Your task to perform on an android device: Open calendar and show me the second week of next month Image 0: 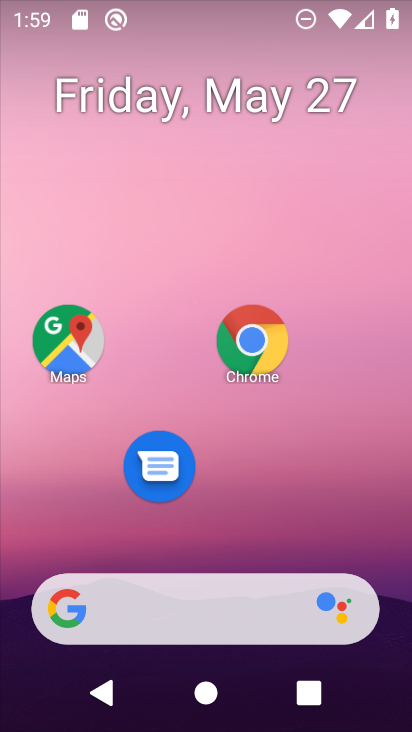
Step 0: drag from (357, 552) to (289, 55)
Your task to perform on an android device: Open calendar and show me the second week of next month Image 1: 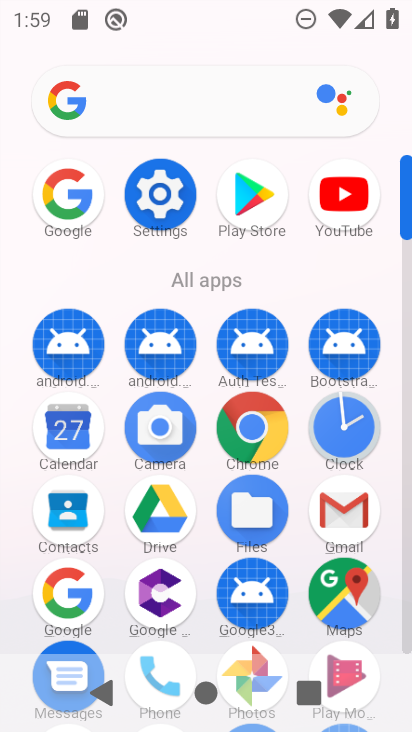
Step 1: click (61, 424)
Your task to perform on an android device: Open calendar and show me the second week of next month Image 2: 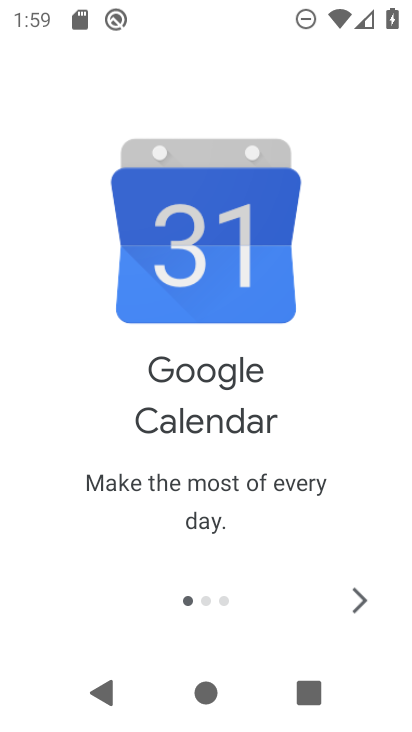
Step 2: click (350, 592)
Your task to perform on an android device: Open calendar and show me the second week of next month Image 3: 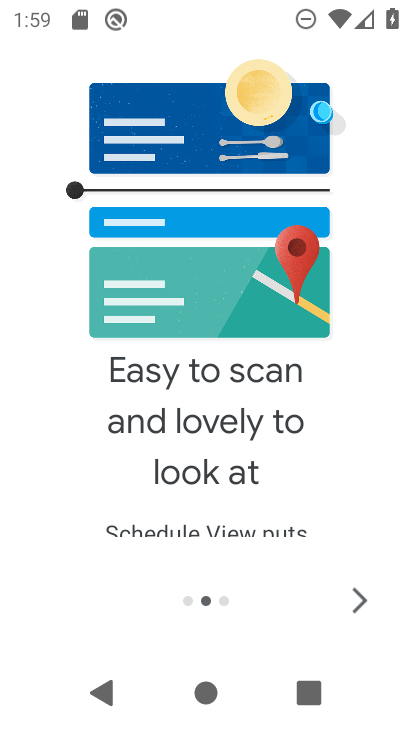
Step 3: click (350, 593)
Your task to perform on an android device: Open calendar and show me the second week of next month Image 4: 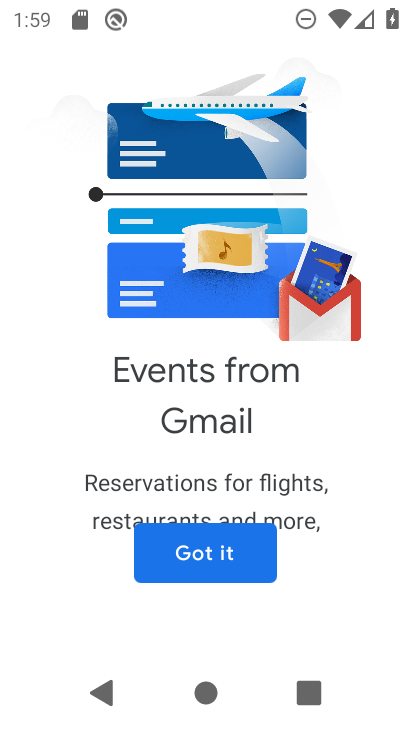
Step 4: click (225, 561)
Your task to perform on an android device: Open calendar and show me the second week of next month Image 5: 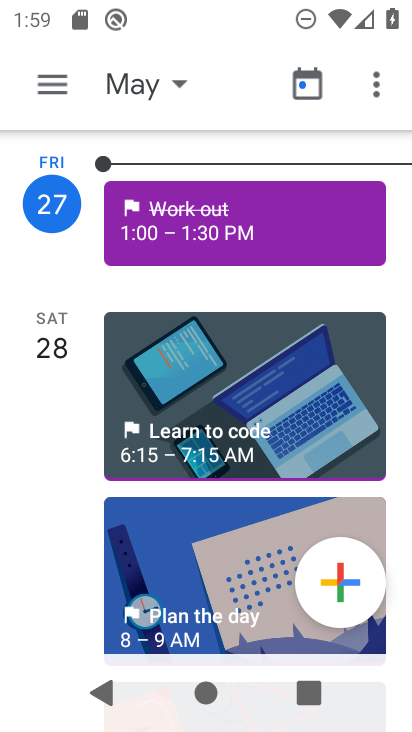
Step 5: click (139, 91)
Your task to perform on an android device: Open calendar and show me the second week of next month Image 6: 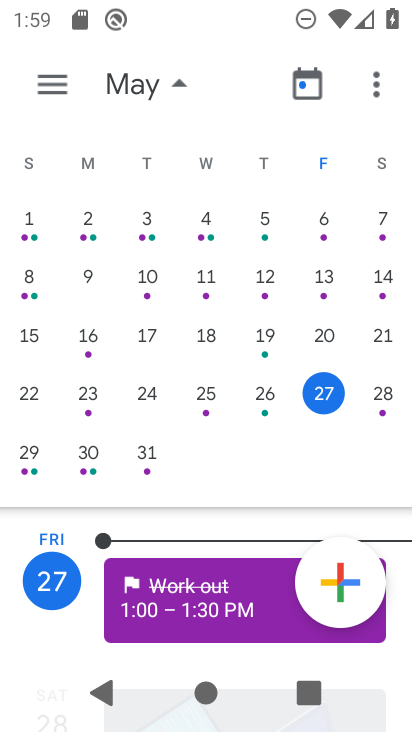
Step 6: drag from (276, 265) to (9, 257)
Your task to perform on an android device: Open calendar and show me the second week of next month Image 7: 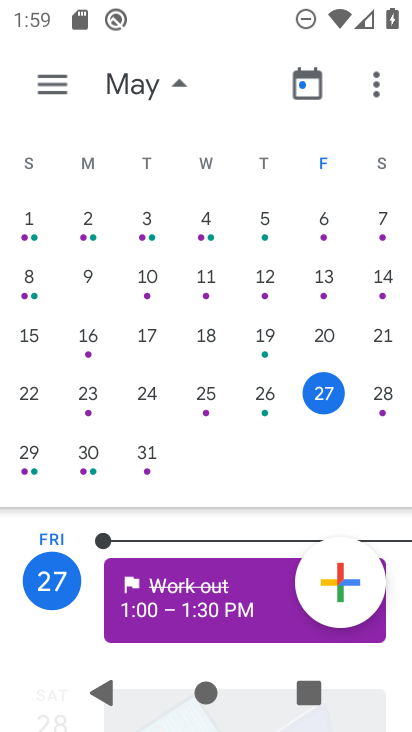
Step 7: drag from (335, 305) to (42, 374)
Your task to perform on an android device: Open calendar and show me the second week of next month Image 8: 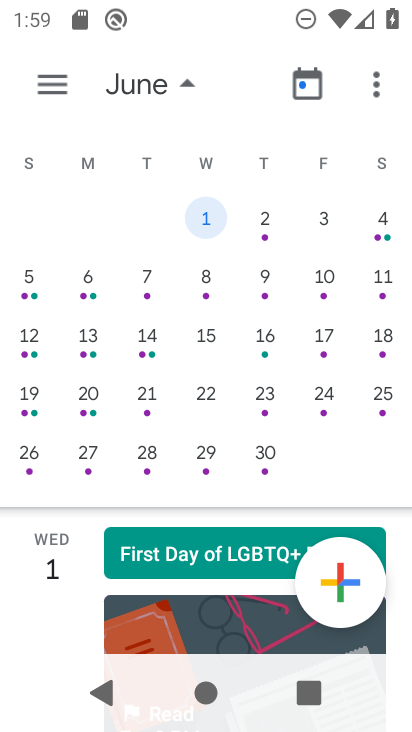
Step 8: click (83, 343)
Your task to perform on an android device: Open calendar and show me the second week of next month Image 9: 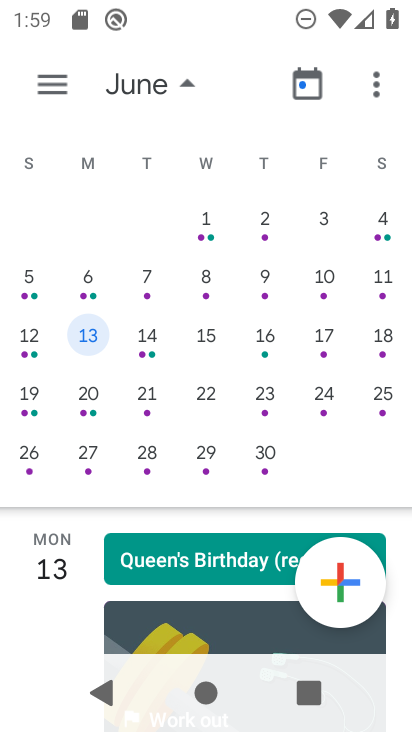
Step 9: click (38, 72)
Your task to perform on an android device: Open calendar and show me the second week of next month Image 10: 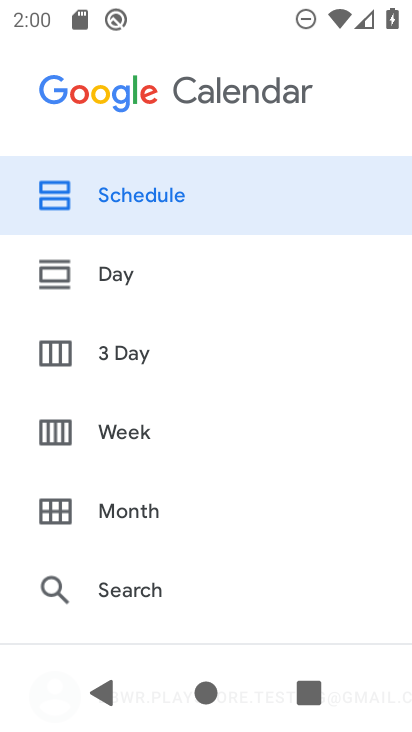
Step 10: click (155, 423)
Your task to perform on an android device: Open calendar and show me the second week of next month Image 11: 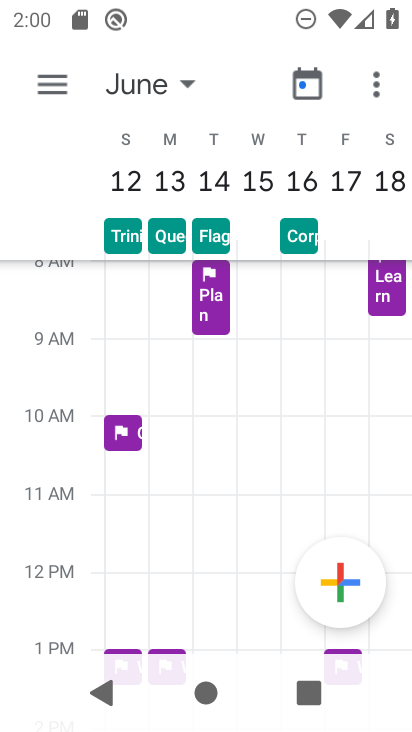
Step 11: task complete